Your task to perform on an android device: turn off picture-in-picture Image 0: 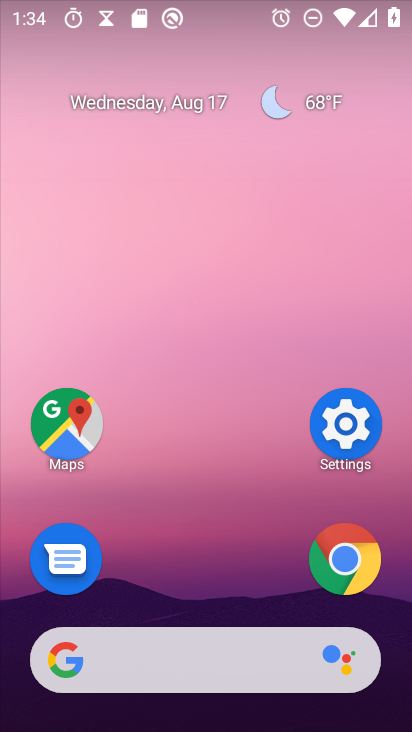
Step 0: drag from (336, 567) to (300, 520)
Your task to perform on an android device: turn off picture-in-picture Image 1: 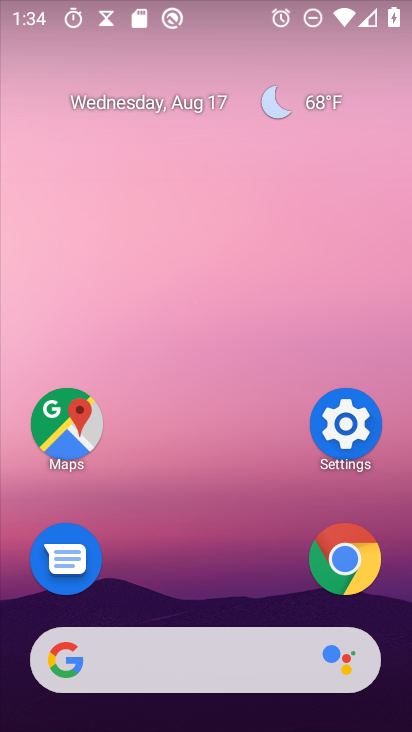
Step 1: click (352, 561)
Your task to perform on an android device: turn off picture-in-picture Image 2: 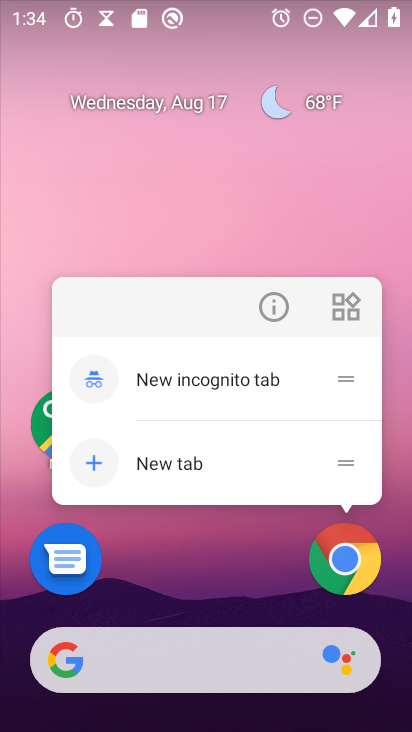
Step 2: click (276, 301)
Your task to perform on an android device: turn off picture-in-picture Image 3: 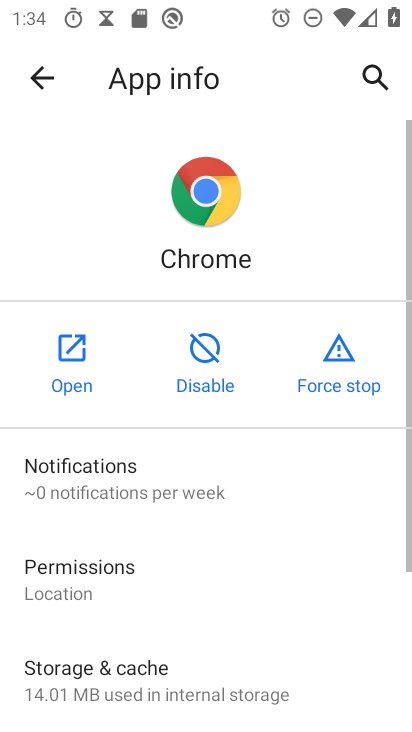
Step 3: drag from (247, 654) to (393, 94)
Your task to perform on an android device: turn off picture-in-picture Image 4: 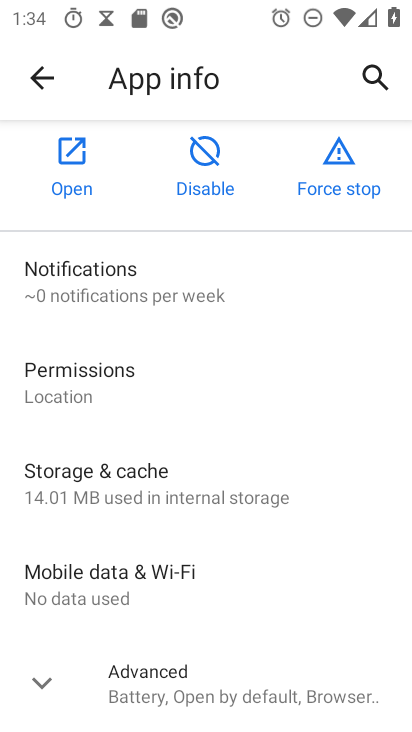
Step 4: click (161, 679)
Your task to perform on an android device: turn off picture-in-picture Image 5: 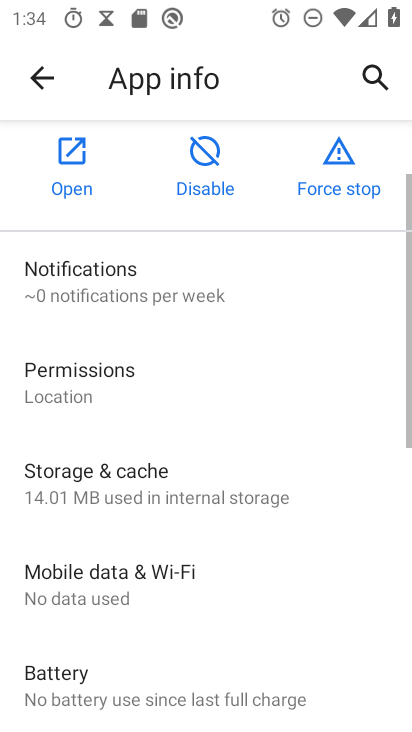
Step 5: drag from (272, 486) to (378, 39)
Your task to perform on an android device: turn off picture-in-picture Image 6: 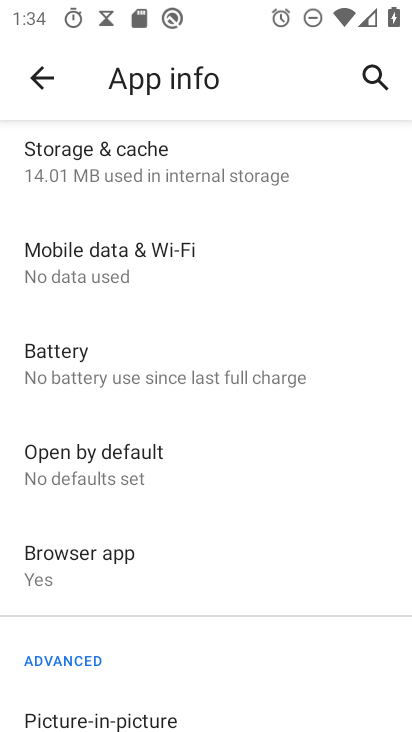
Step 6: drag from (152, 611) to (337, 124)
Your task to perform on an android device: turn off picture-in-picture Image 7: 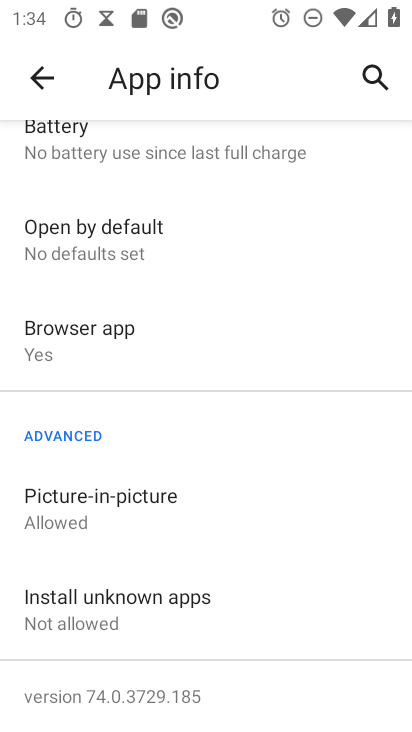
Step 7: click (119, 510)
Your task to perform on an android device: turn off picture-in-picture Image 8: 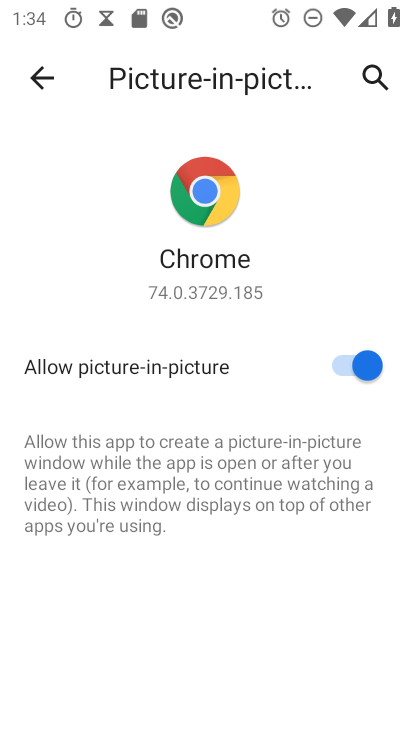
Step 8: click (344, 369)
Your task to perform on an android device: turn off picture-in-picture Image 9: 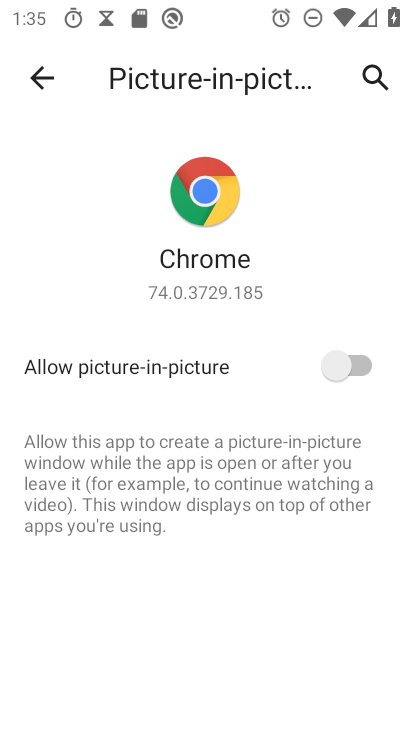
Step 9: task complete